Your task to perform on an android device: Search for flights from NYC to Tokyo Image 0: 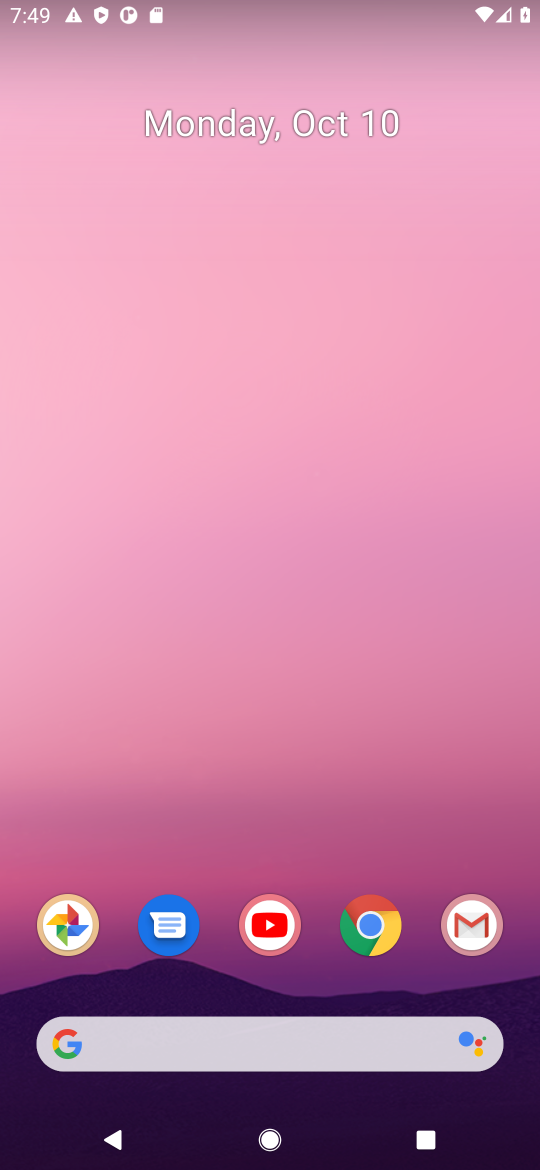
Step 0: drag from (324, 1001) to (371, 91)
Your task to perform on an android device: Search for flights from NYC to Tokyo Image 1: 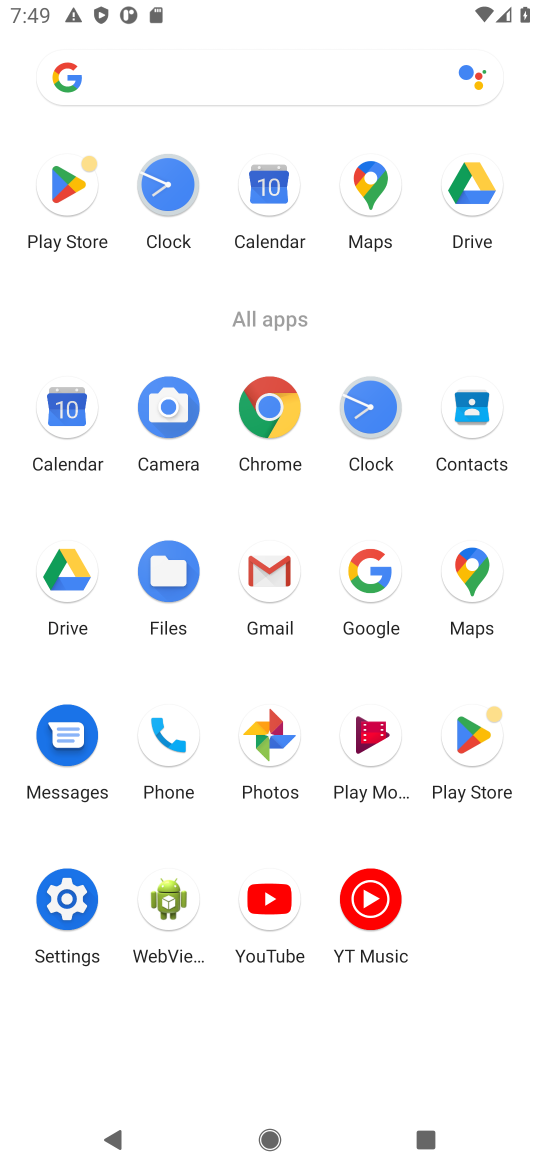
Step 1: click (267, 402)
Your task to perform on an android device: Search for flights from NYC to Tokyo Image 2: 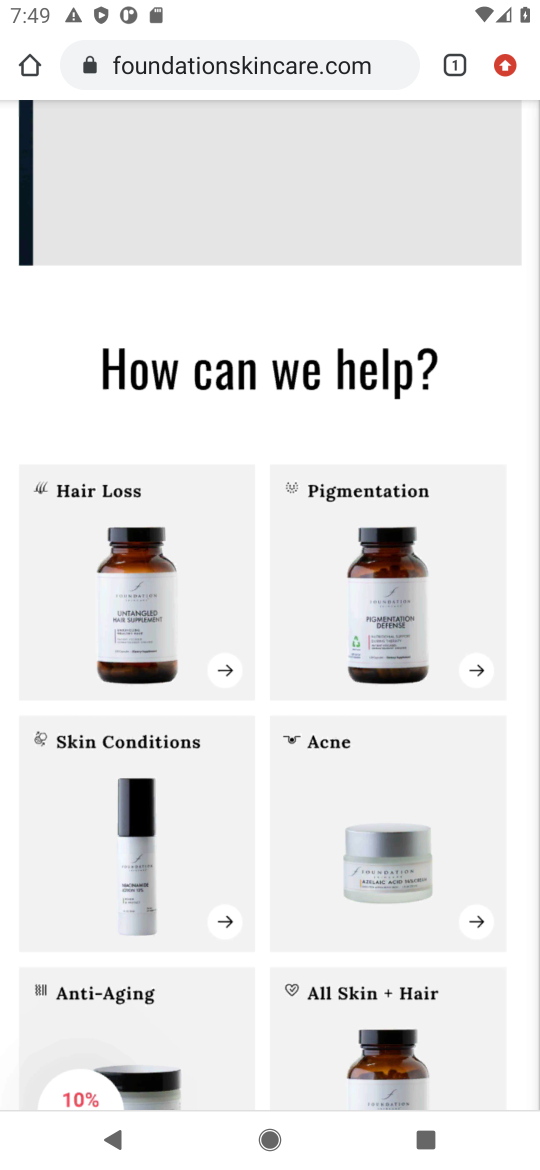
Step 2: click (288, 55)
Your task to perform on an android device: Search for flights from NYC to Tokyo Image 3: 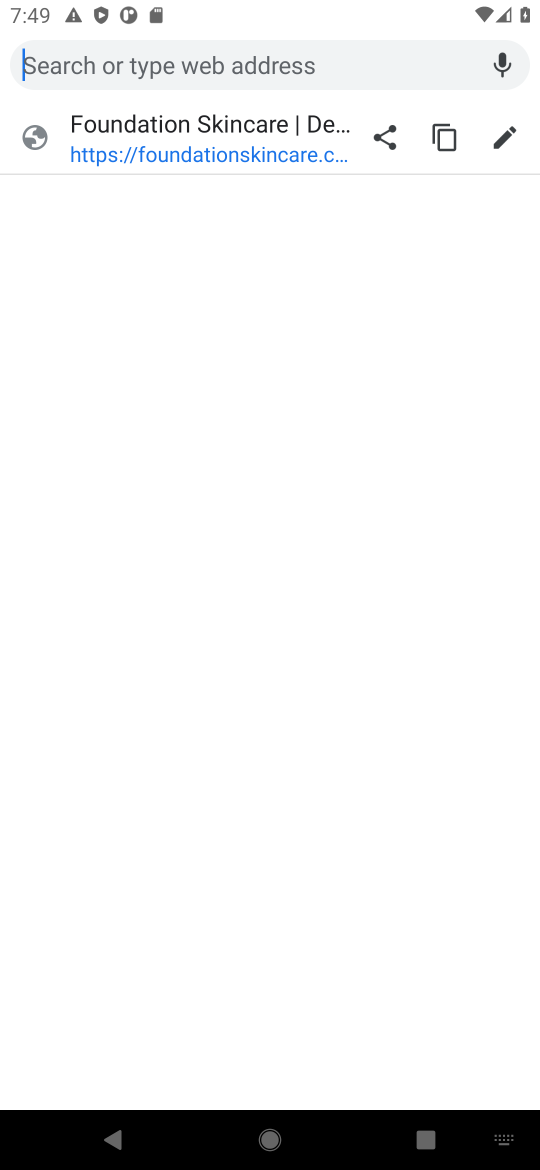
Step 3: type "flights from NYC to Tokyo"
Your task to perform on an android device: Search for flights from NYC to Tokyo Image 4: 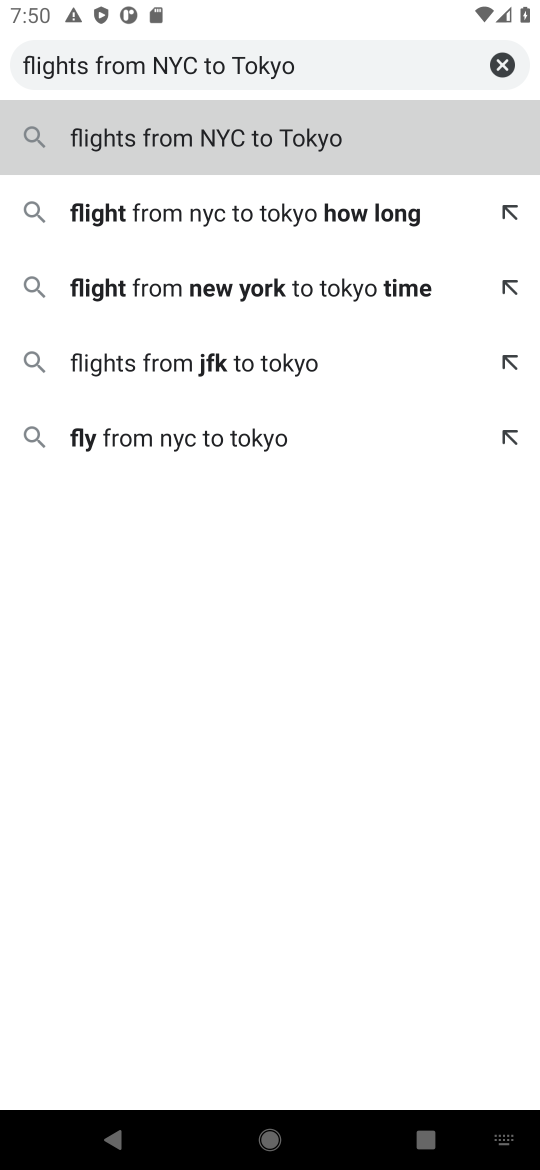
Step 4: press enter
Your task to perform on an android device: Search for flights from NYC to Tokyo Image 5: 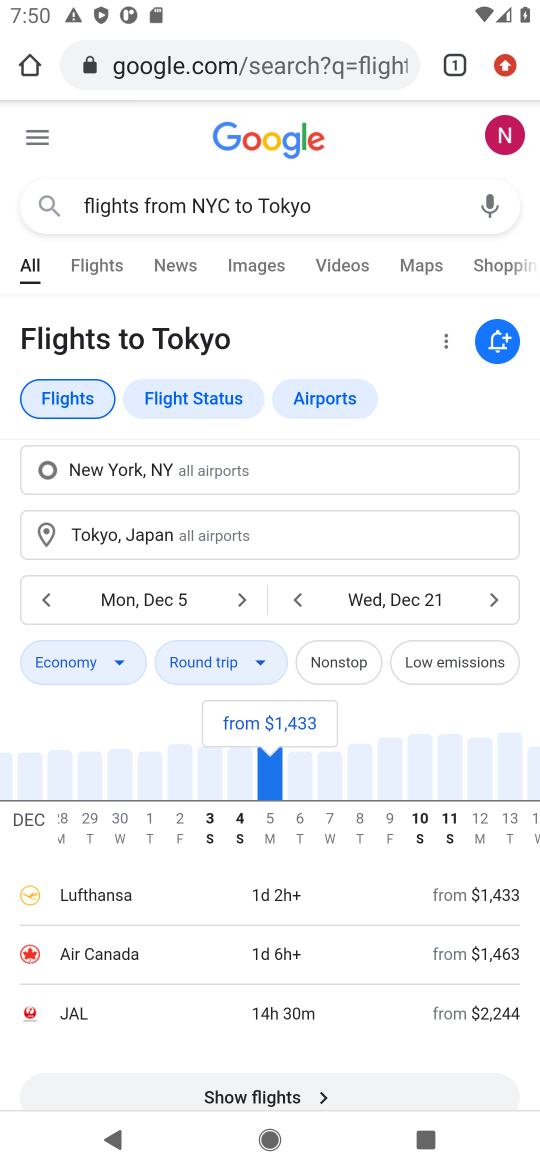
Step 5: task complete